Your task to perform on an android device: turn off improve location accuracy Image 0: 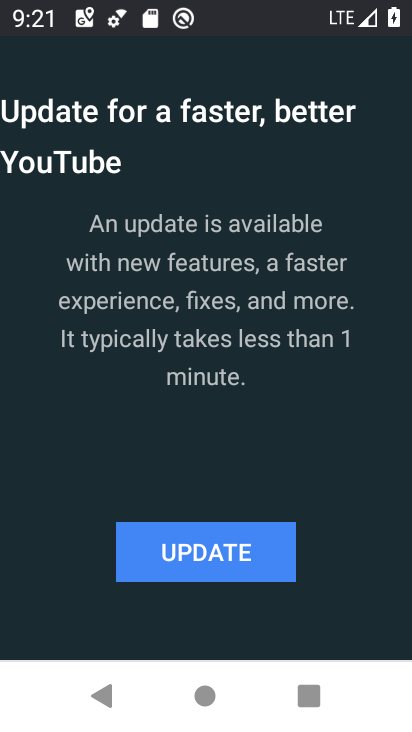
Step 0: press home button
Your task to perform on an android device: turn off improve location accuracy Image 1: 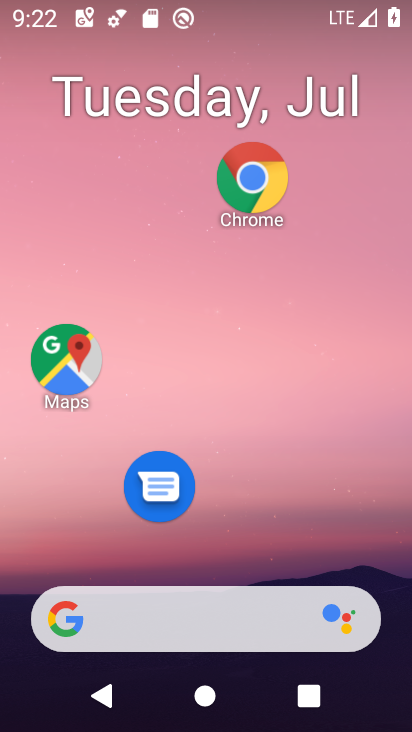
Step 1: drag from (195, 553) to (288, 89)
Your task to perform on an android device: turn off improve location accuracy Image 2: 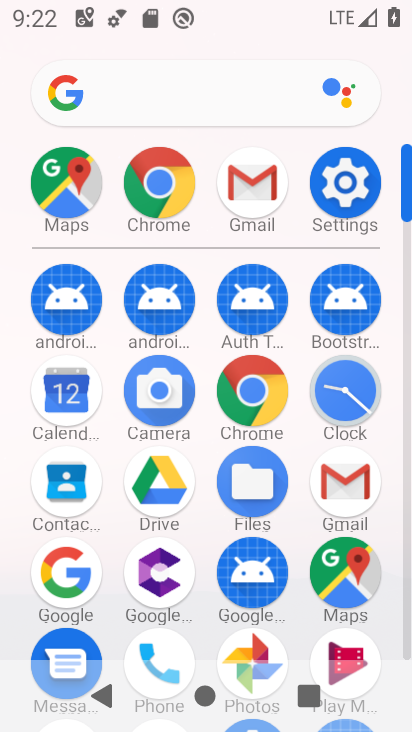
Step 2: click (327, 214)
Your task to perform on an android device: turn off improve location accuracy Image 3: 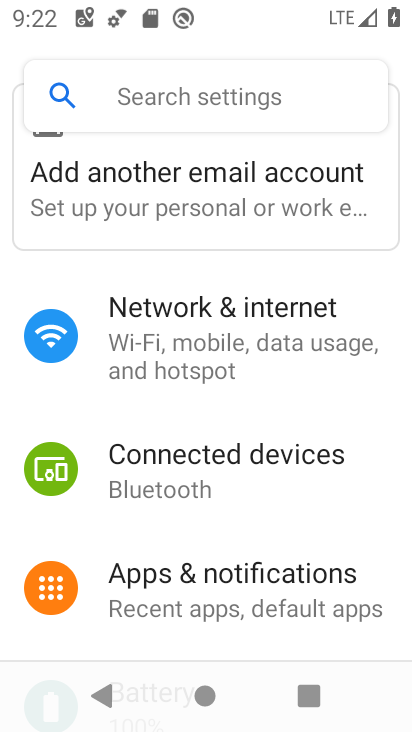
Step 3: drag from (221, 555) to (291, 313)
Your task to perform on an android device: turn off improve location accuracy Image 4: 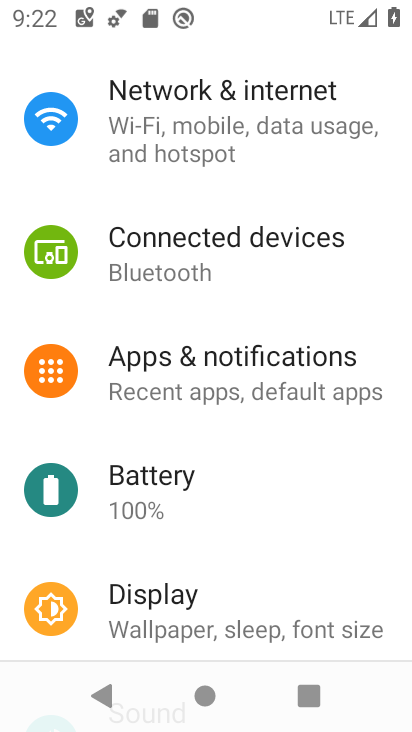
Step 4: drag from (248, 543) to (339, 202)
Your task to perform on an android device: turn off improve location accuracy Image 5: 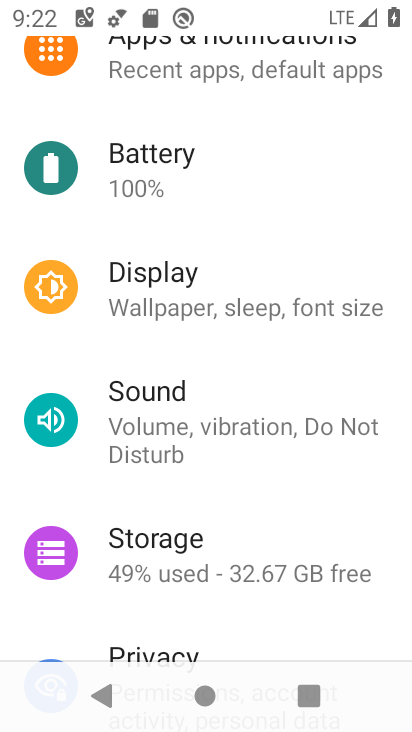
Step 5: drag from (280, 503) to (338, 233)
Your task to perform on an android device: turn off improve location accuracy Image 6: 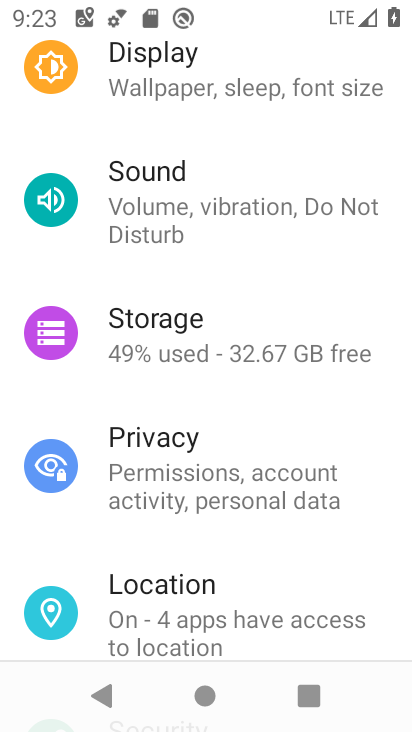
Step 6: click (188, 581)
Your task to perform on an android device: turn off improve location accuracy Image 7: 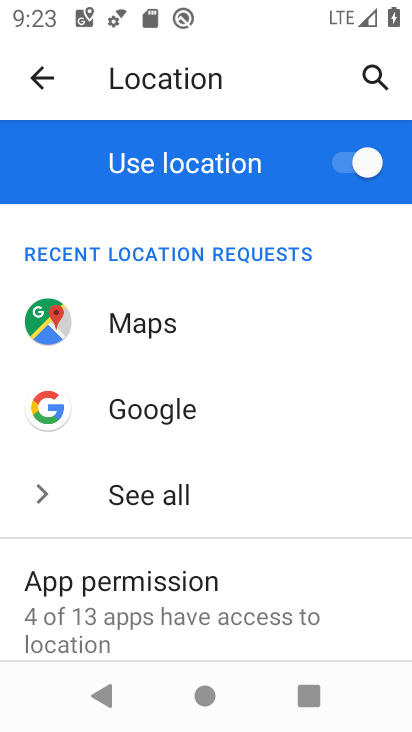
Step 7: drag from (211, 604) to (255, 142)
Your task to perform on an android device: turn off improve location accuracy Image 8: 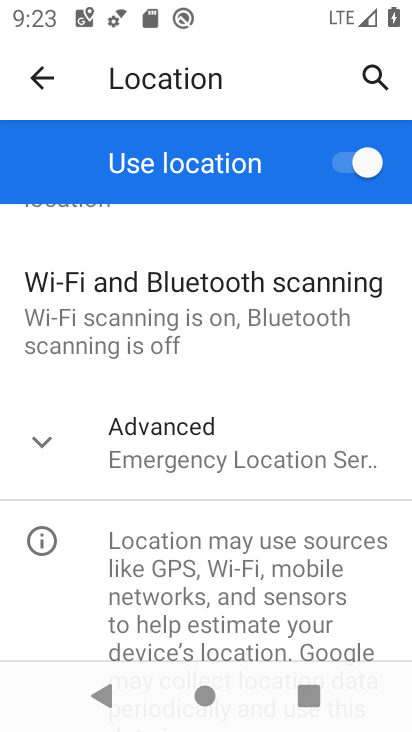
Step 8: click (151, 454)
Your task to perform on an android device: turn off improve location accuracy Image 9: 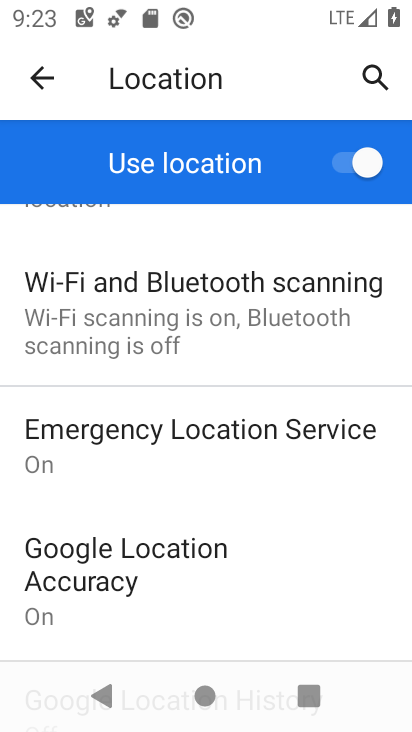
Step 9: drag from (174, 620) to (254, 464)
Your task to perform on an android device: turn off improve location accuracy Image 10: 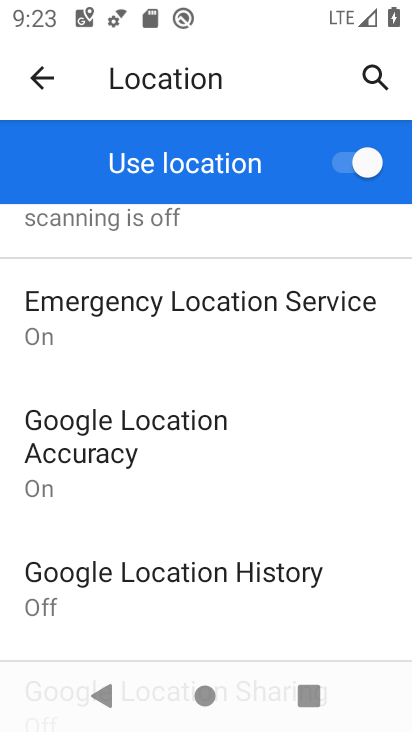
Step 10: click (125, 431)
Your task to perform on an android device: turn off improve location accuracy Image 11: 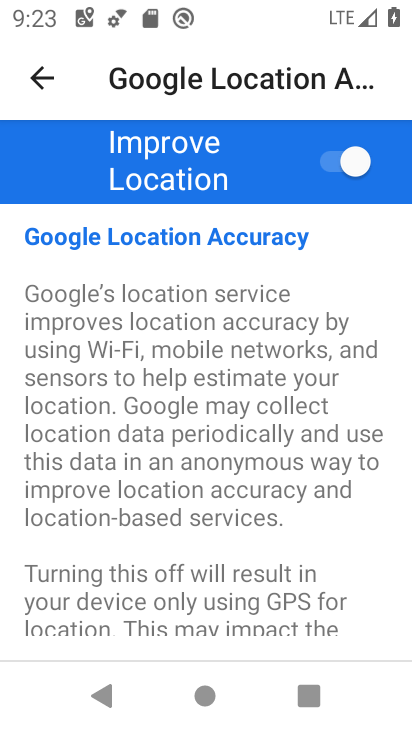
Step 11: click (335, 167)
Your task to perform on an android device: turn off improve location accuracy Image 12: 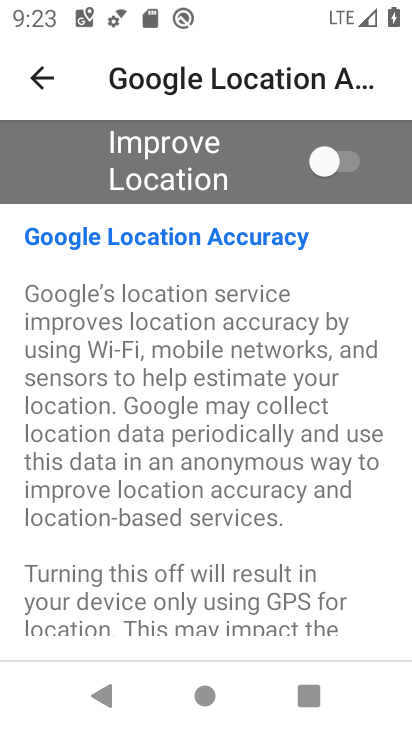
Step 12: task complete